Your task to perform on an android device: Open Chrome and go to settings Image 0: 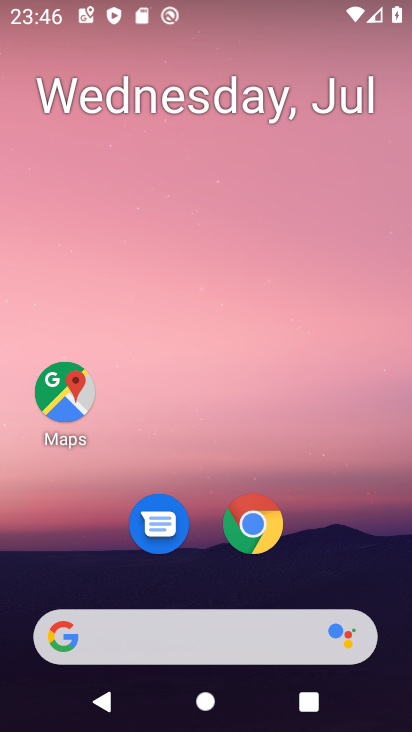
Step 0: click (248, 533)
Your task to perform on an android device: Open Chrome and go to settings Image 1: 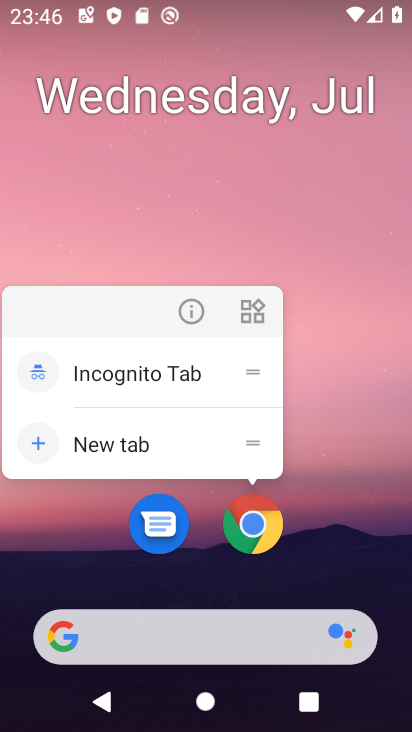
Step 1: click (248, 534)
Your task to perform on an android device: Open Chrome and go to settings Image 2: 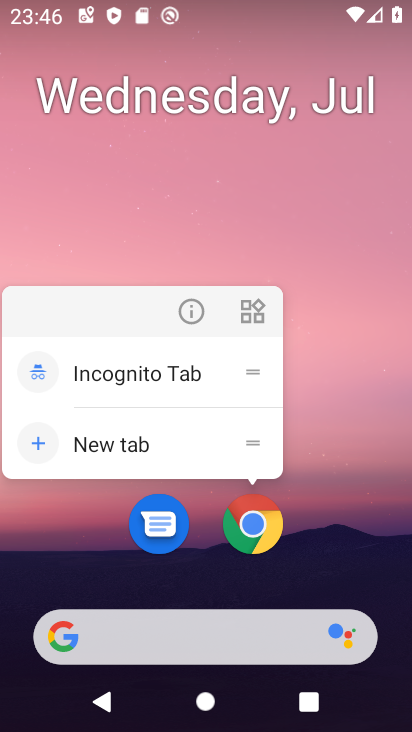
Step 2: click (260, 521)
Your task to perform on an android device: Open Chrome and go to settings Image 3: 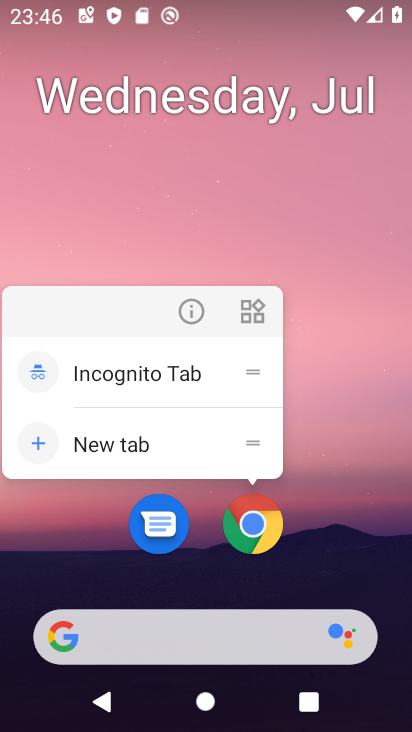
Step 3: click (260, 521)
Your task to perform on an android device: Open Chrome and go to settings Image 4: 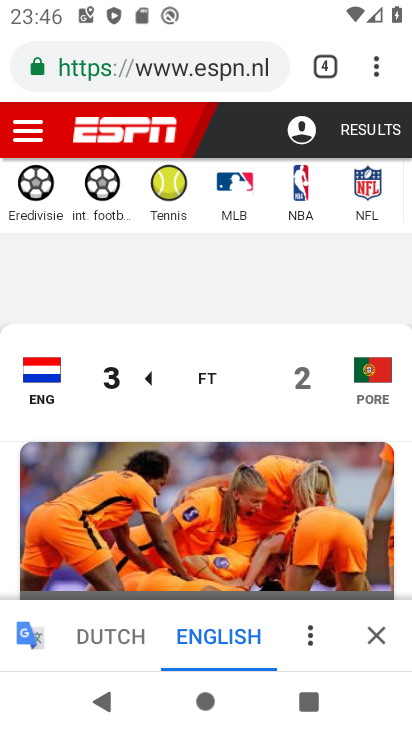
Step 4: task complete